Your task to perform on an android device: all mails in gmail Image 0: 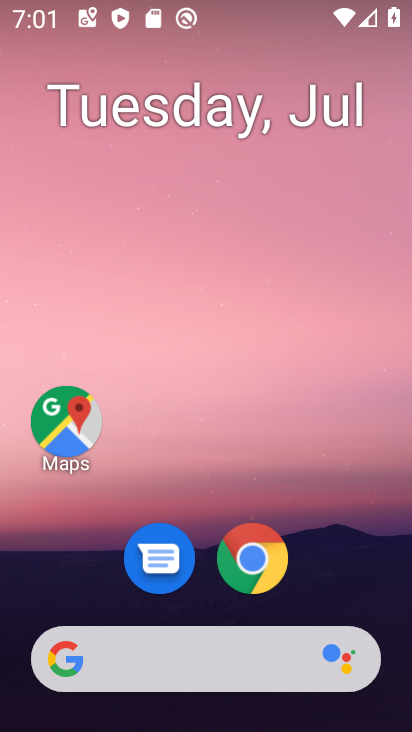
Step 0: drag from (105, 492) to (185, 103)
Your task to perform on an android device: all mails in gmail Image 1: 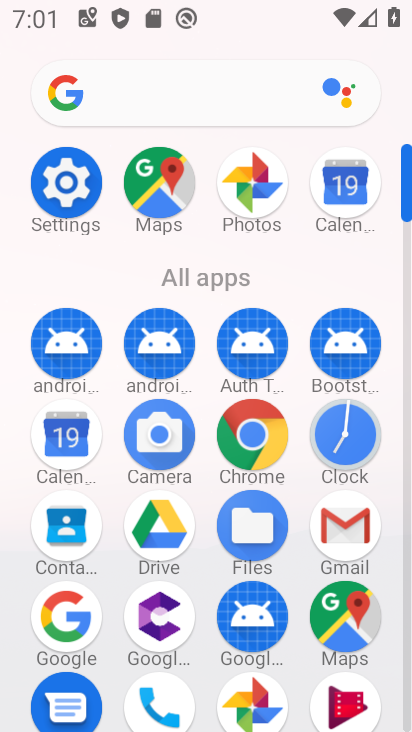
Step 1: click (327, 530)
Your task to perform on an android device: all mails in gmail Image 2: 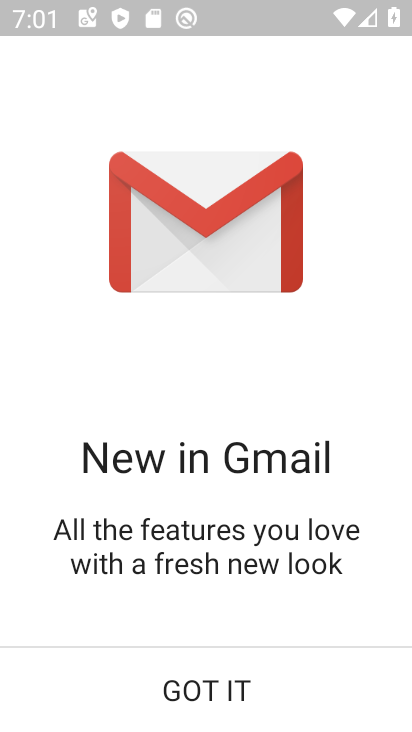
Step 2: click (206, 688)
Your task to perform on an android device: all mails in gmail Image 3: 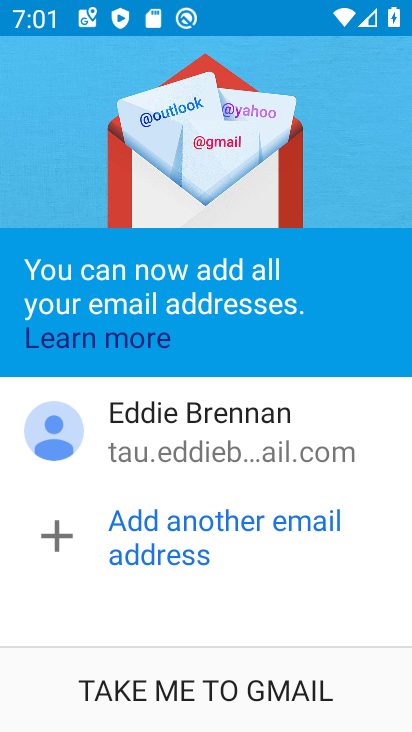
Step 3: click (218, 678)
Your task to perform on an android device: all mails in gmail Image 4: 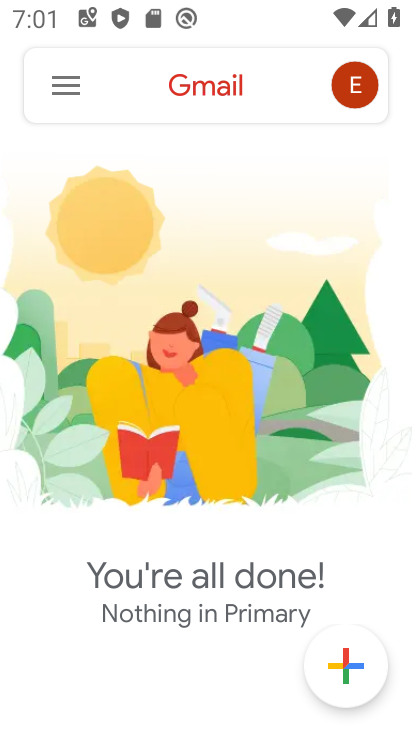
Step 4: click (64, 74)
Your task to perform on an android device: all mails in gmail Image 5: 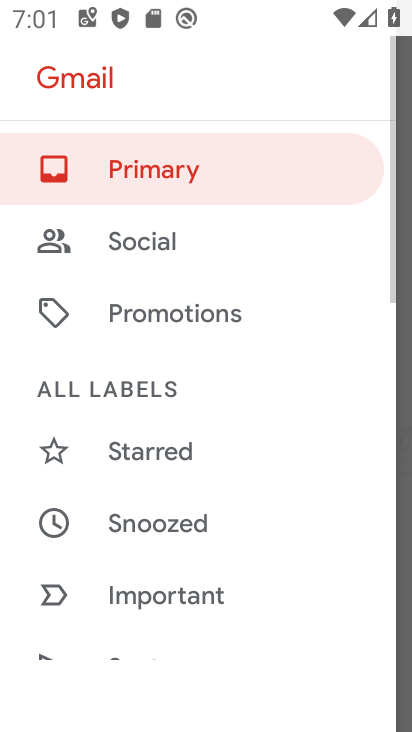
Step 5: drag from (178, 613) to (240, 83)
Your task to perform on an android device: all mails in gmail Image 6: 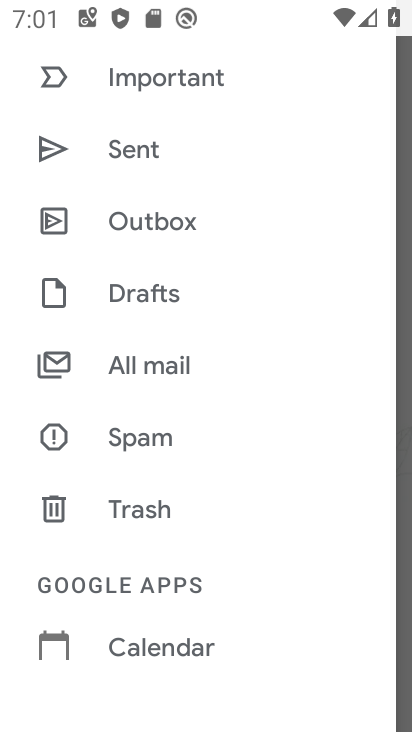
Step 6: click (181, 365)
Your task to perform on an android device: all mails in gmail Image 7: 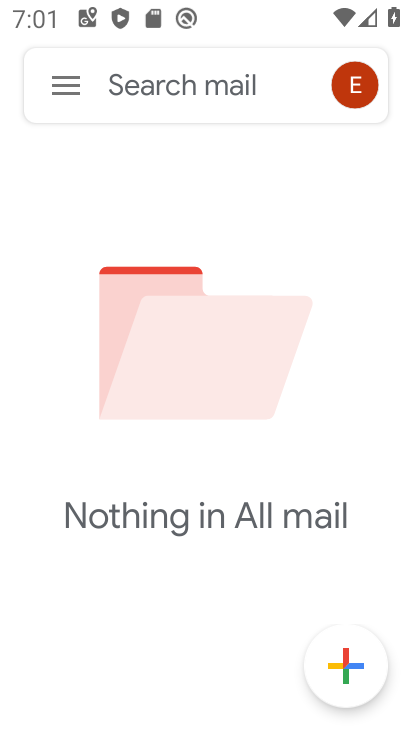
Step 7: task complete